Your task to perform on an android device: Go to Yahoo.com Image 0: 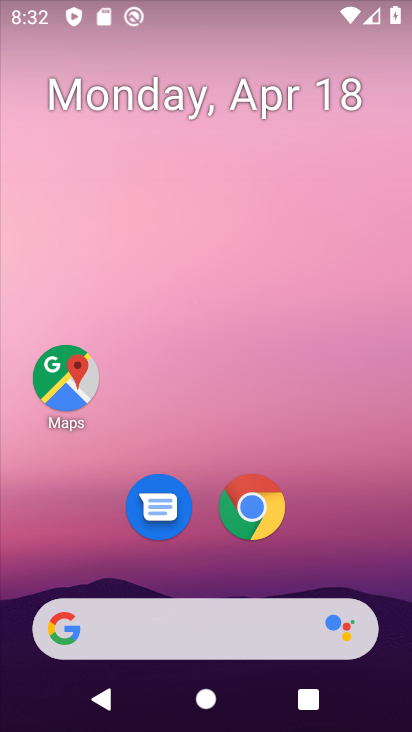
Step 0: click (247, 504)
Your task to perform on an android device: Go to Yahoo.com Image 1: 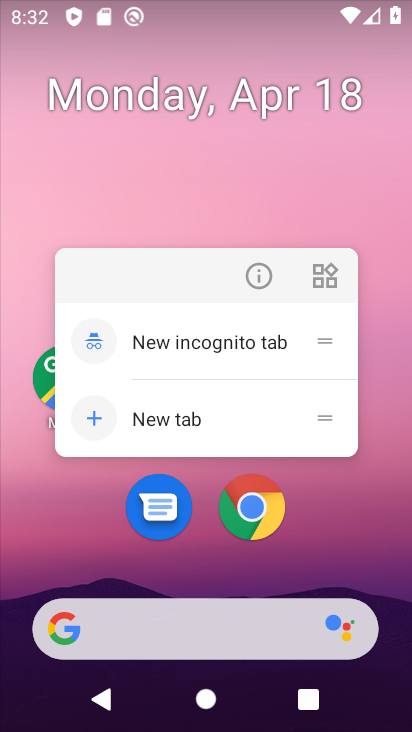
Step 1: drag from (250, 577) to (288, 112)
Your task to perform on an android device: Go to Yahoo.com Image 2: 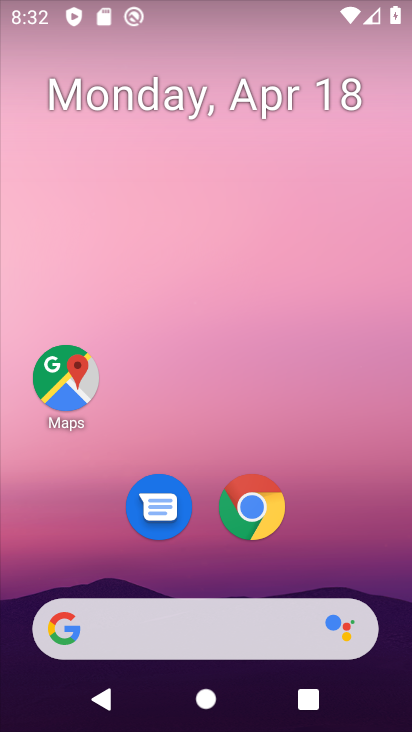
Step 2: drag from (192, 555) to (273, 159)
Your task to perform on an android device: Go to Yahoo.com Image 3: 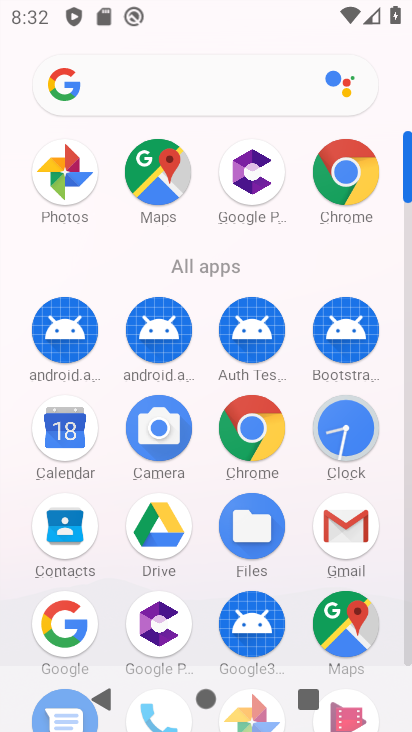
Step 3: click (340, 185)
Your task to perform on an android device: Go to Yahoo.com Image 4: 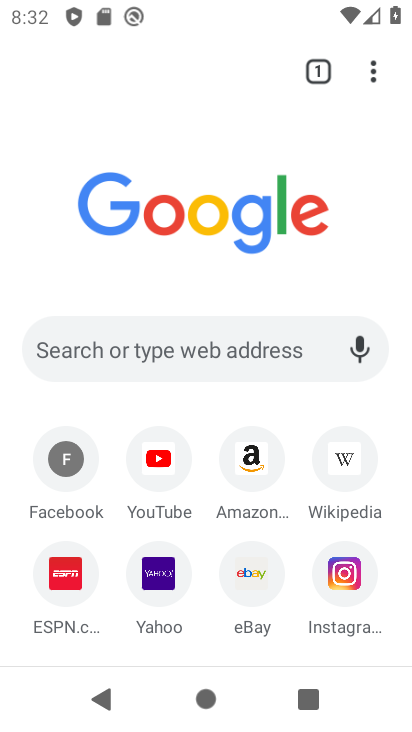
Step 4: click (131, 344)
Your task to perform on an android device: Go to Yahoo.com Image 5: 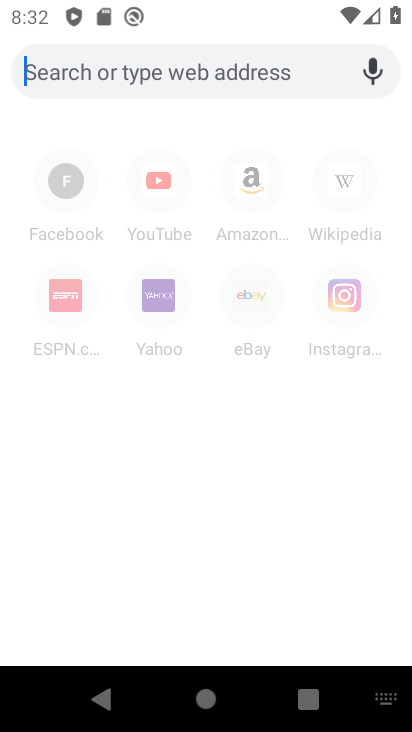
Step 5: type "yahoo.com"
Your task to perform on an android device: Go to Yahoo.com Image 6: 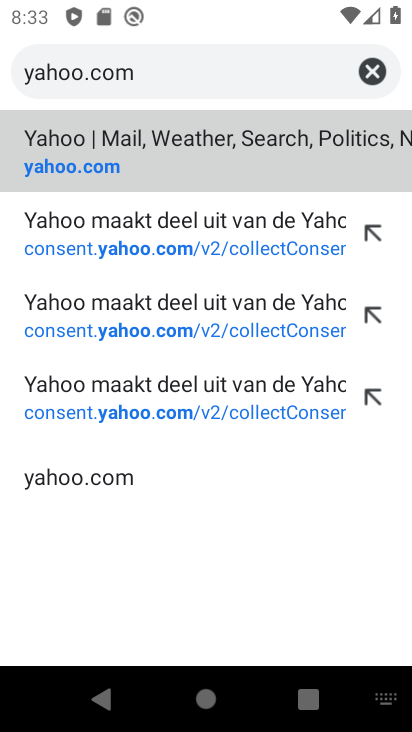
Step 6: click (102, 478)
Your task to perform on an android device: Go to Yahoo.com Image 7: 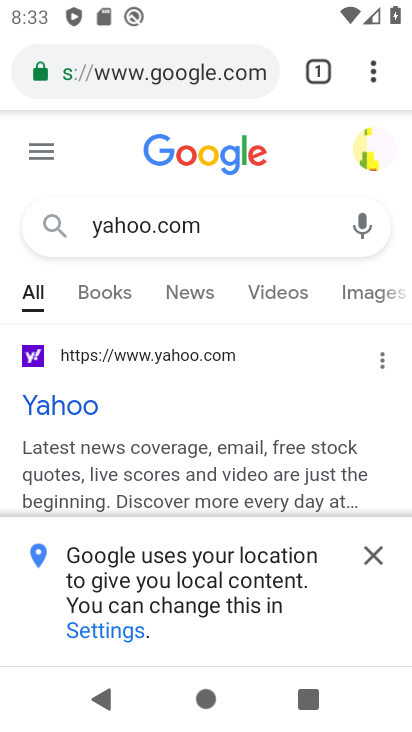
Step 7: task complete